Your task to perform on an android device: set the stopwatch Image 0: 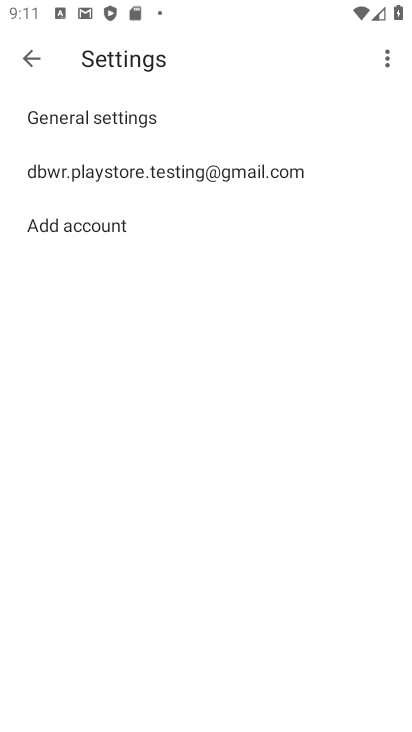
Step 0: press home button
Your task to perform on an android device: set the stopwatch Image 1: 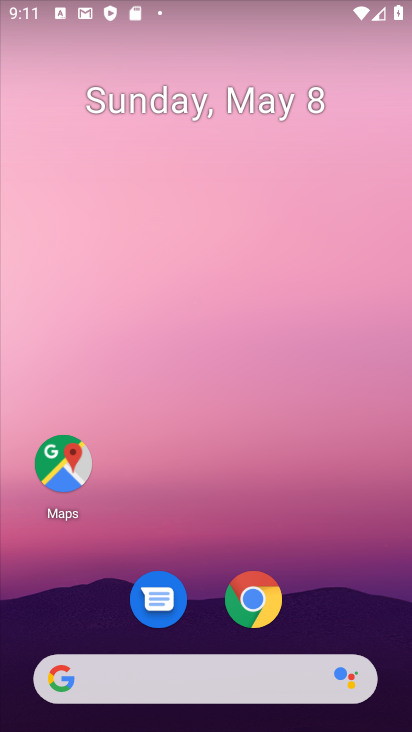
Step 1: drag from (269, 638) to (246, 140)
Your task to perform on an android device: set the stopwatch Image 2: 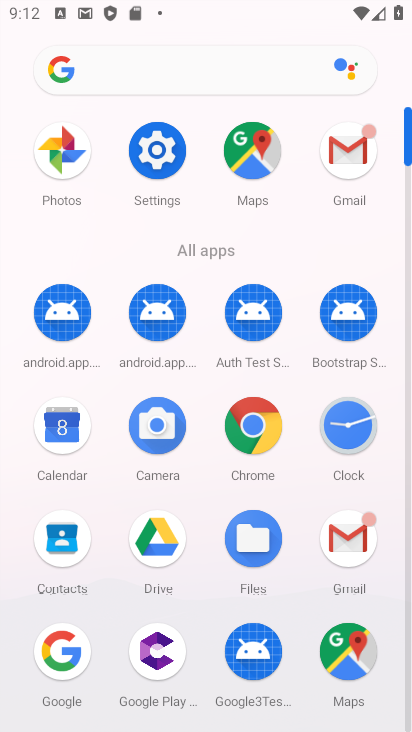
Step 2: click (359, 419)
Your task to perform on an android device: set the stopwatch Image 3: 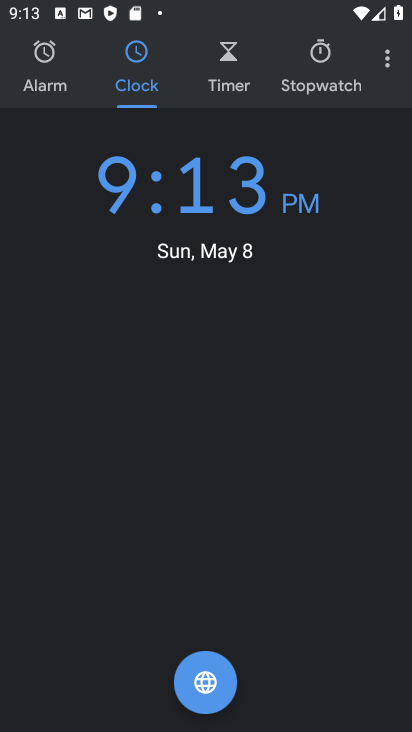
Step 3: click (319, 61)
Your task to perform on an android device: set the stopwatch Image 4: 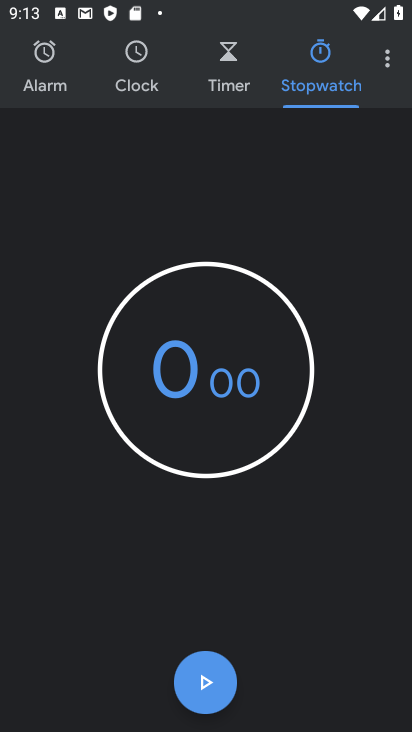
Step 4: click (224, 704)
Your task to perform on an android device: set the stopwatch Image 5: 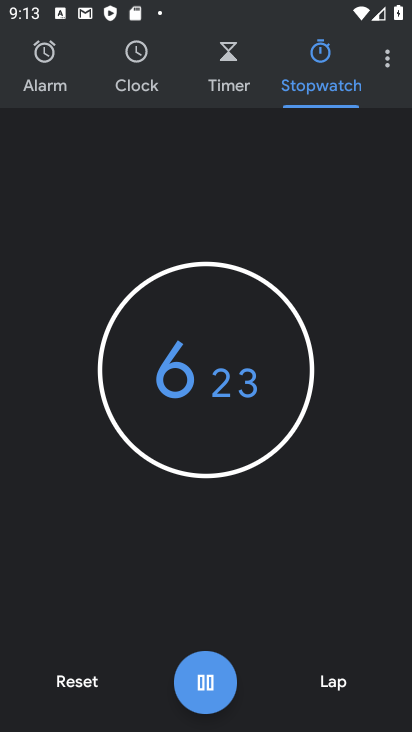
Step 5: task complete